Your task to perform on an android device: add a contact in the contacts app Image 0: 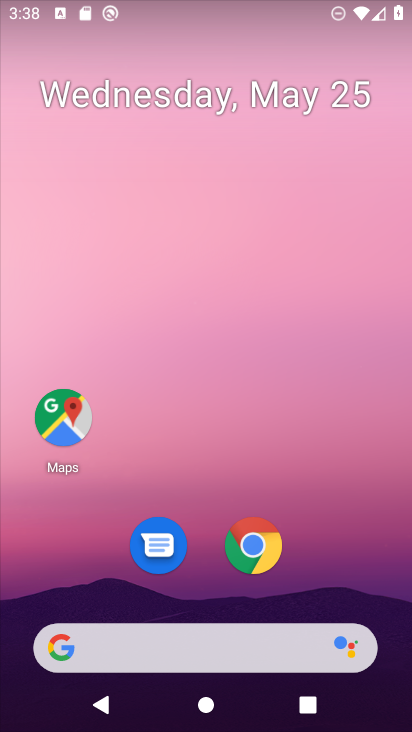
Step 0: drag from (339, 580) to (322, 124)
Your task to perform on an android device: add a contact in the contacts app Image 1: 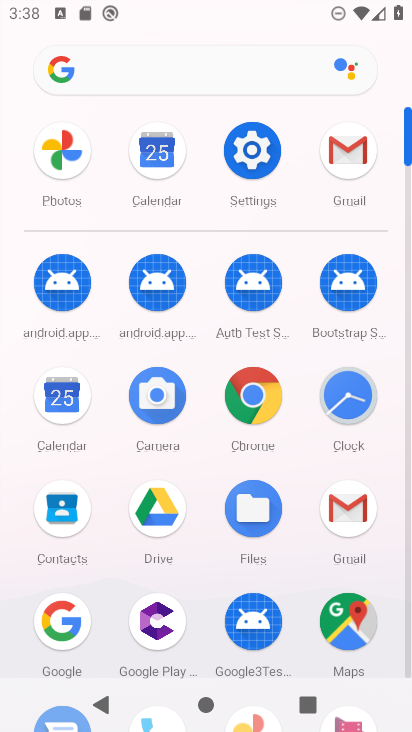
Step 1: click (51, 517)
Your task to perform on an android device: add a contact in the contacts app Image 2: 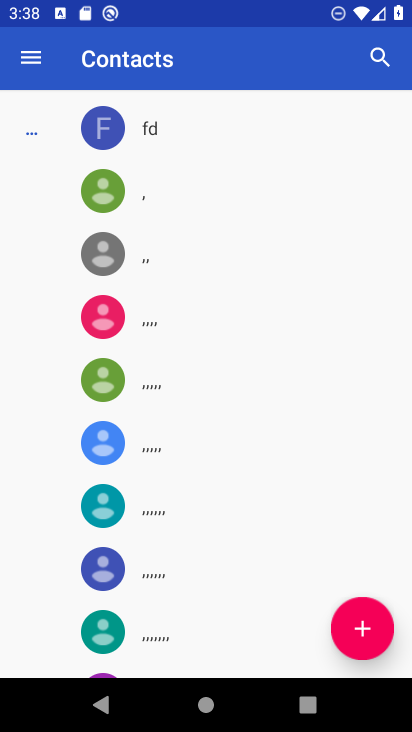
Step 2: click (355, 641)
Your task to perform on an android device: add a contact in the contacts app Image 3: 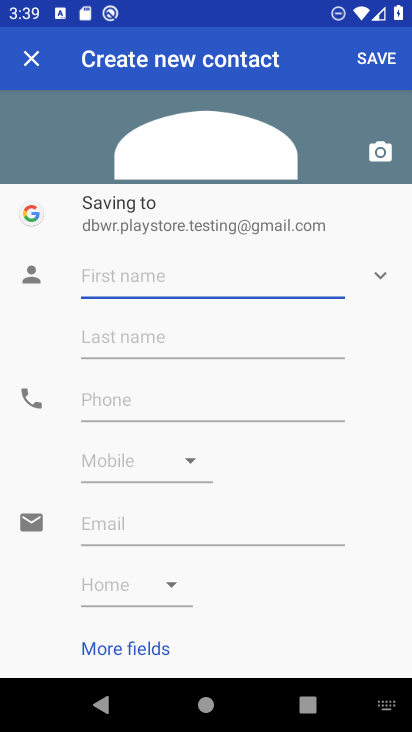
Step 3: type "cdsd"
Your task to perform on an android device: add a contact in the contacts app Image 4: 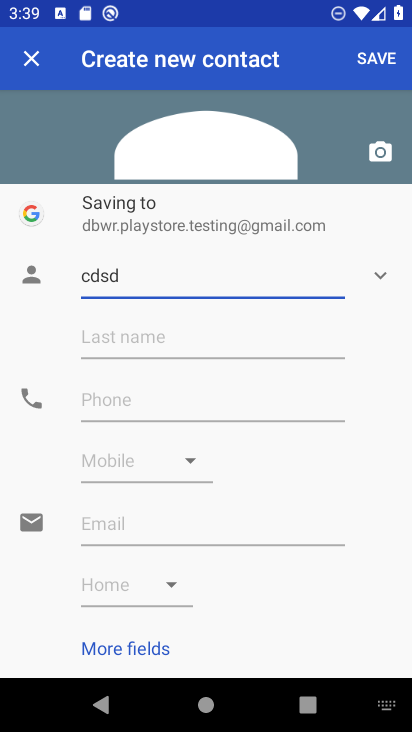
Step 4: click (376, 64)
Your task to perform on an android device: add a contact in the contacts app Image 5: 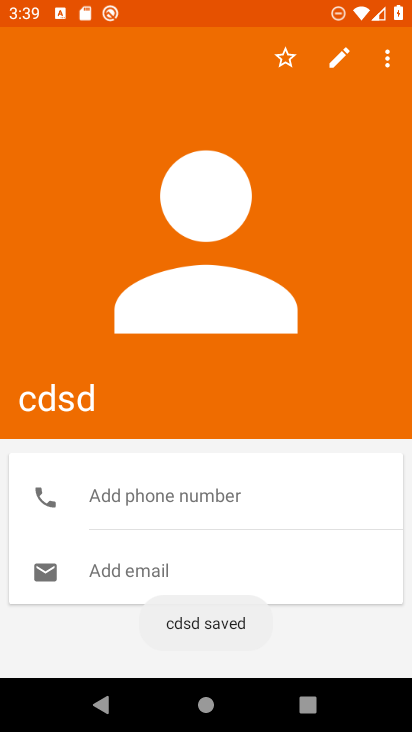
Step 5: task complete